Your task to perform on an android device: turn off wifi Image 0: 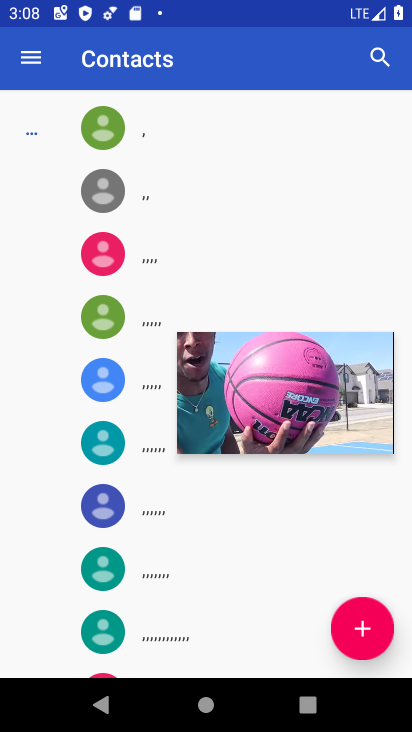
Step 0: click (385, 338)
Your task to perform on an android device: turn off wifi Image 1: 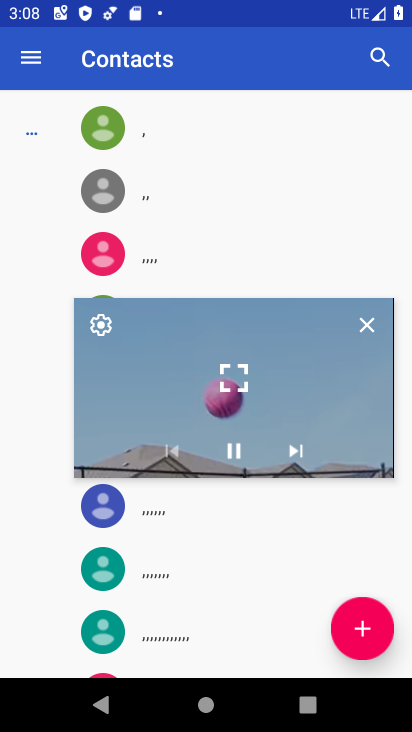
Step 1: click (367, 320)
Your task to perform on an android device: turn off wifi Image 2: 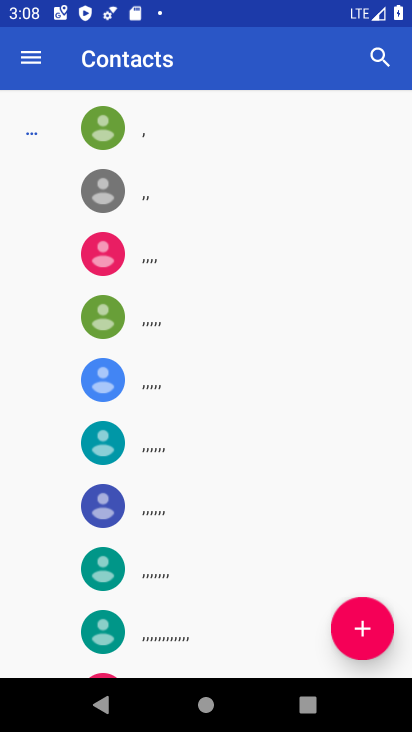
Step 2: press home button
Your task to perform on an android device: turn off wifi Image 3: 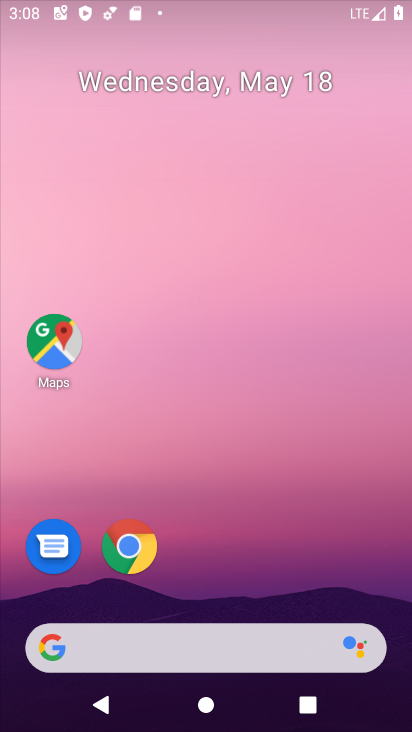
Step 3: drag from (205, 722) to (209, 193)
Your task to perform on an android device: turn off wifi Image 4: 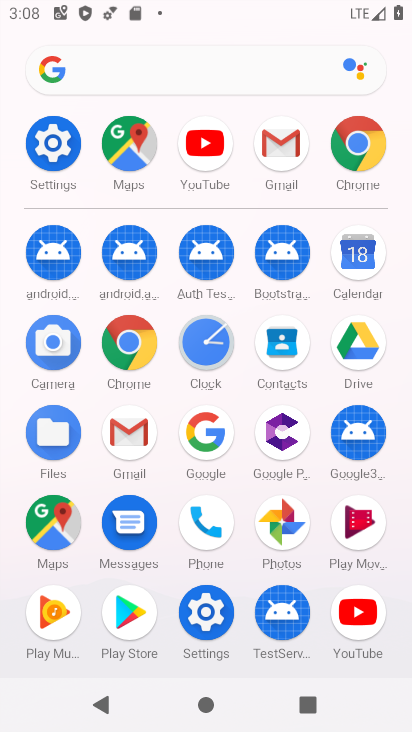
Step 4: click (56, 139)
Your task to perform on an android device: turn off wifi Image 5: 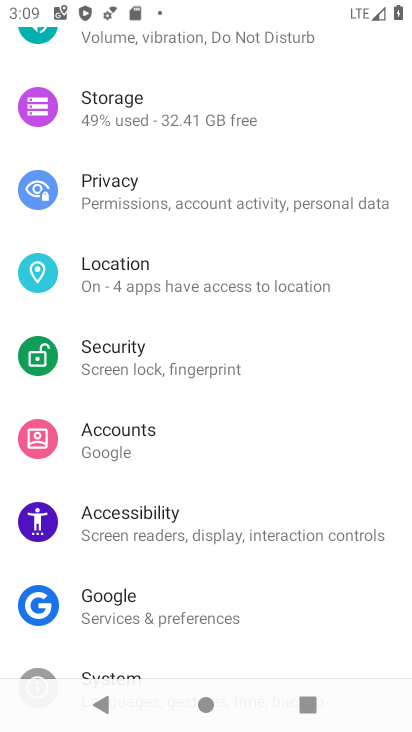
Step 5: drag from (148, 129) to (148, 503)
Your task to perform on an android device: turn off wifi Image 6: 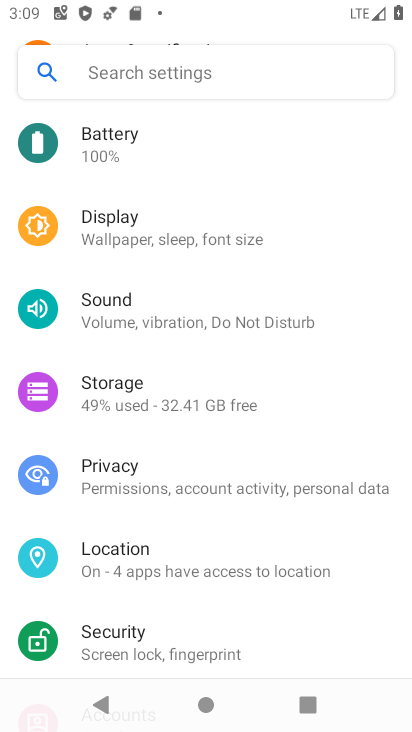
Step 6: drag from (180, 169) to (200, 648)
Your task to perform on an android device: turn off wifi Image 7: 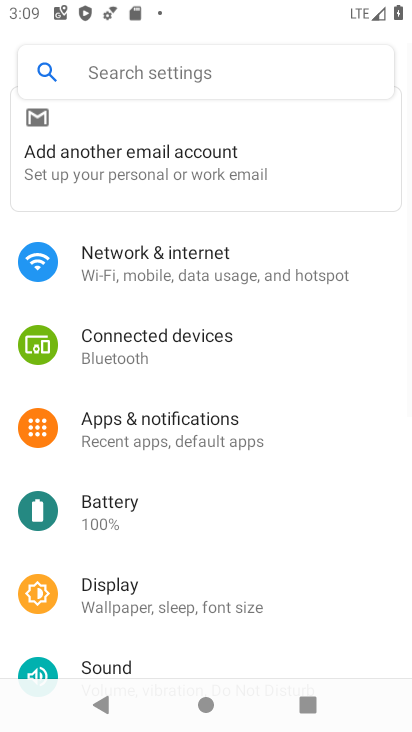
Step 7: drag from (213, 165) to (231, 556)
Your task to perform on an android device: turn off wifi Image 8: 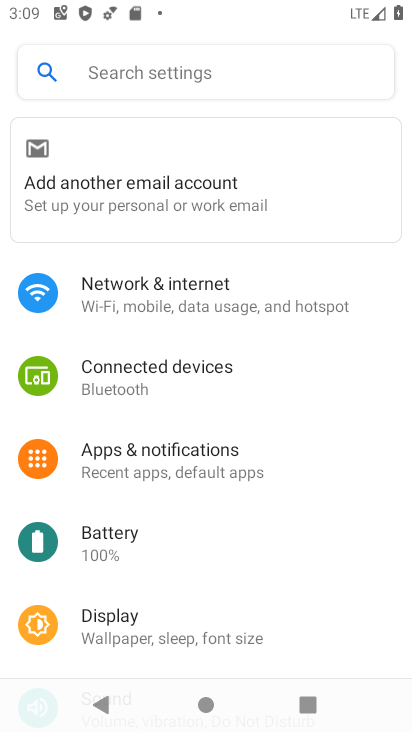
Step 8: click (178, 301)
Your task to perform on an android device: turn off wifi Image 9: 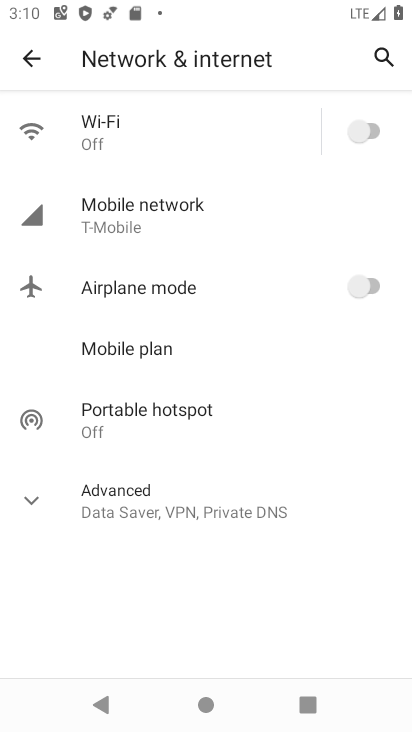
Step 9: task complete